Your task to perform on an android device: delete location history Image 0: 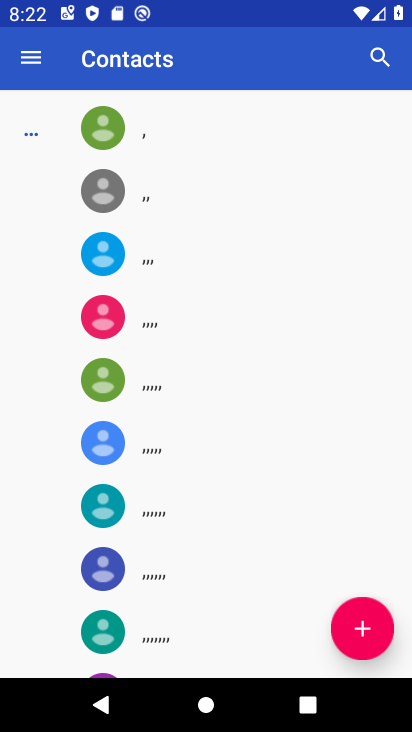
Step 0: press home button
Your task to perform on an android device: delete location history Image 1: 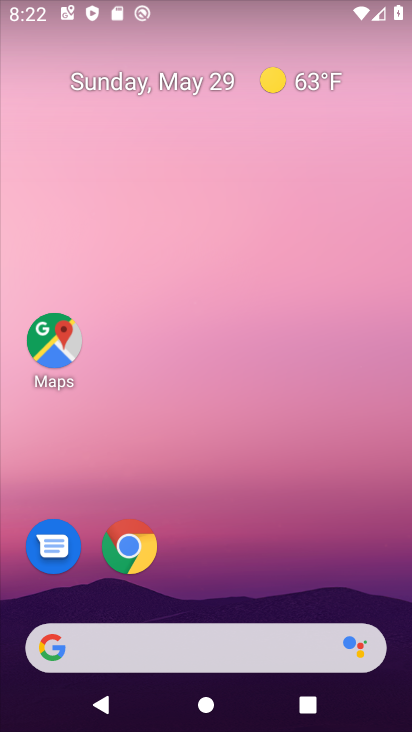
Step 1: click (44, 349)
Your task to perform on an android device: delete location history Image 2: 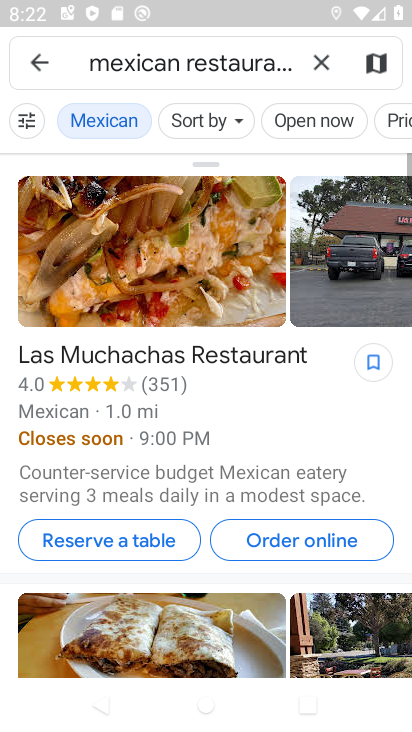
Step 2: click (29, 60)
Your task to perform on an android device: delete location history Image 3: 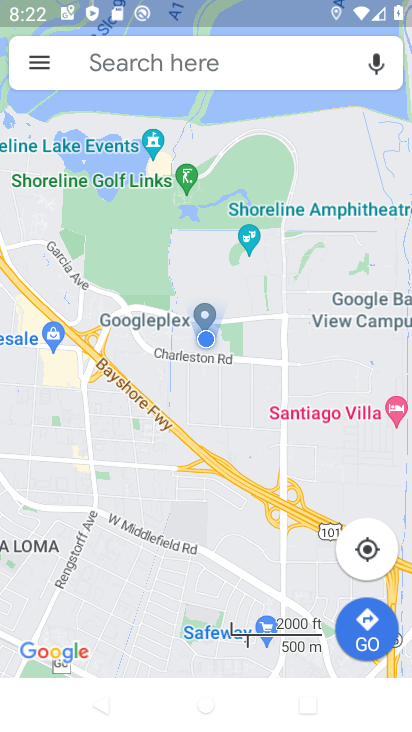
Step 3: click (37, 59)
Your task to perform on an android device: delete location history Image 4: 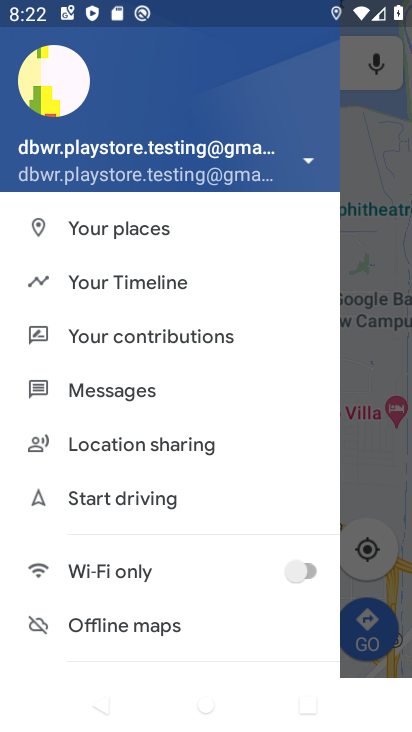
Step 4: click (161, 283)
Your task to perform on an android device: delete location history Image 5: 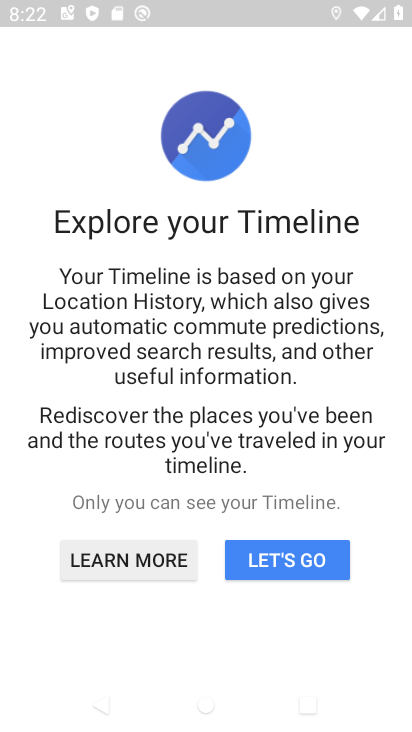
Step 5: click (279, 566)
Your task to perform on an android device: delete location history Image 6: 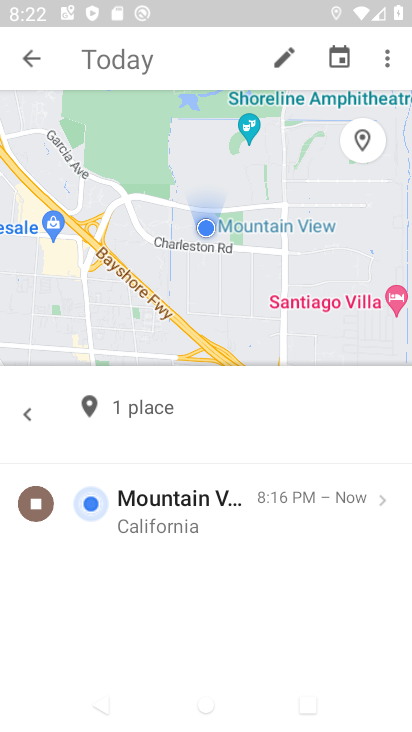
Step 6: click (383, 52)
Your task to perform on an android device: delete location history Image 7: 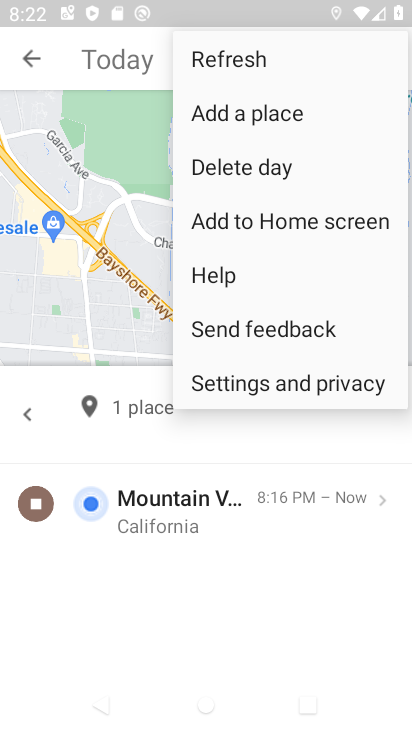
Step 7: click (263, 383)
Your task to perform on an android device: delete location history Image 8: 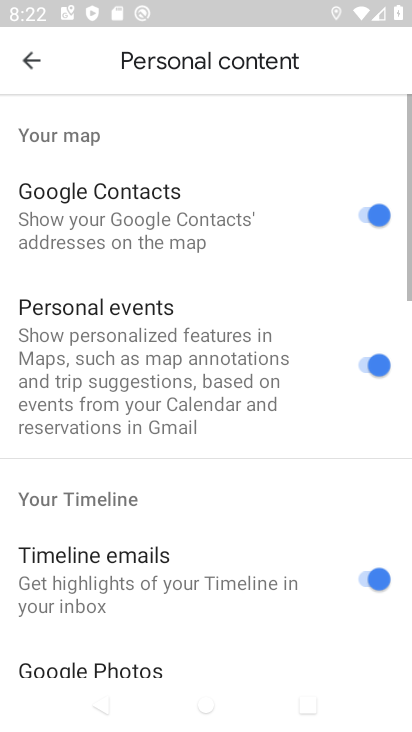
Step 8: drag from (226, 617) to (376, 102)
Your task to perform on an android device: delete location history Image 9: 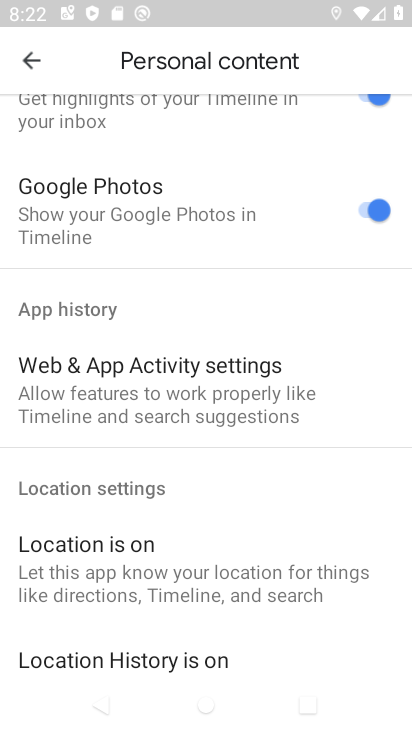
Step 9: drag from (215, 574) to (341, 82)
Your task to perform on an android device: delete location history Image 10: 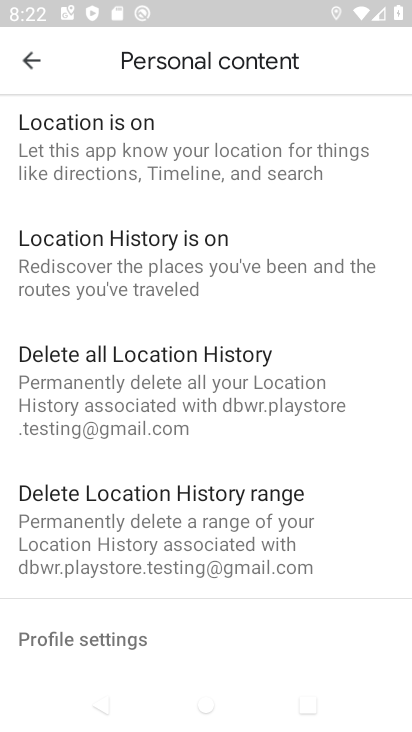
Step 10: click (179, 362)
Your task to perform on an android device: delete location history Image 11: 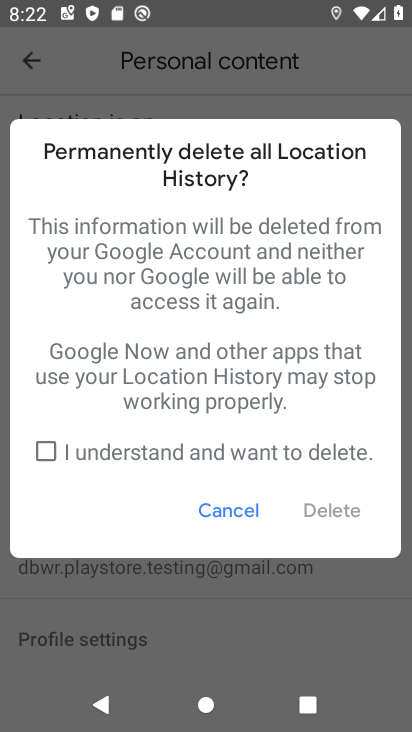
Step 11: click (48, 439)
Your task to perform on an android device: delete location history Image 12: 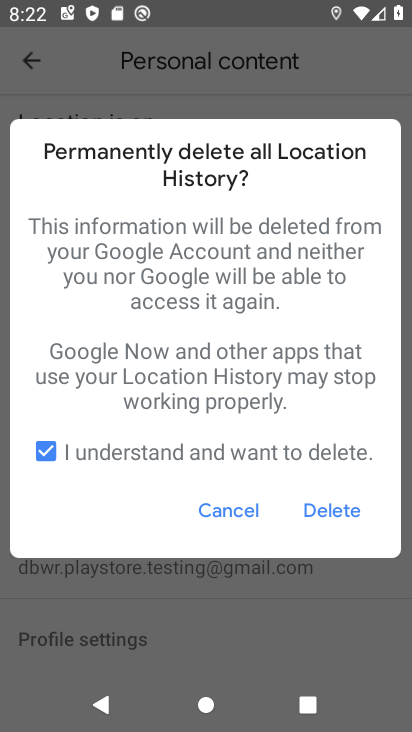
Step 12: click (347, 517)
Your task to perform on an android device: delete location history Image 13: 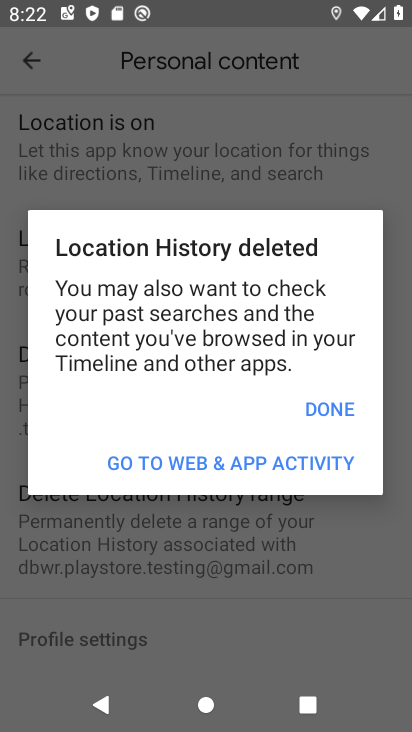
Step 13: click (325, 411)
Your task to perform on an android device: delete location history Image 14: 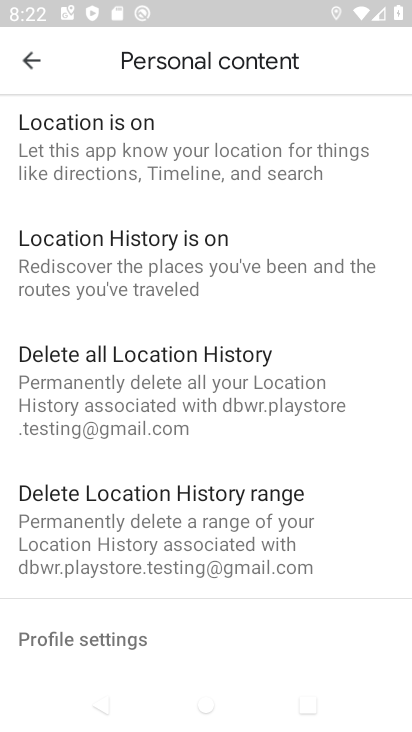
Step 14: task complete